Your task to perform on an android device: open app "HBO Max: Stream TV & Movies" (install if not already installed) and enter user name: "faring@outlook.com" and password: "appropriately" Image 0: 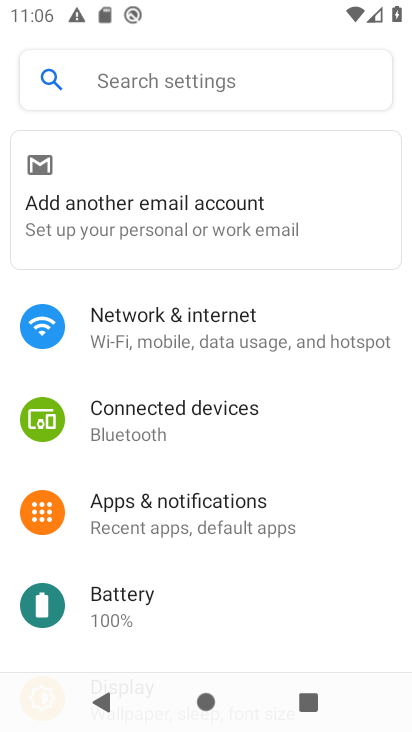
Step 0: press back button
Your task to perform on an android device: open app "HBO Max: Stream TV & Movies" (install if not already installed) and enter user name: "faring@outlook.com" and password: "appropriately" Image 1: 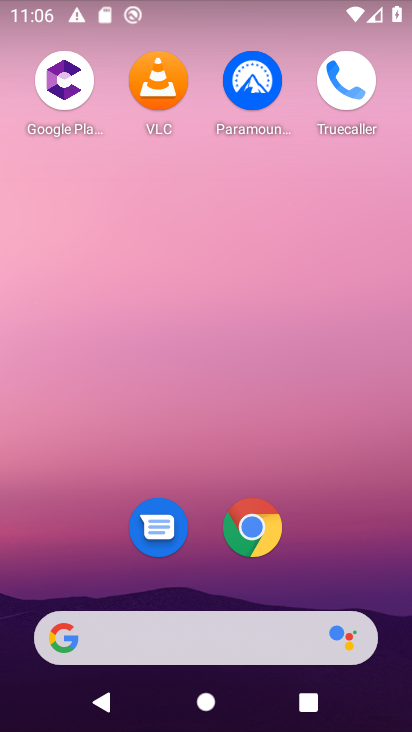
Step 1: drag from (89, 574) to (249, 13)
Your task to perform on an android device: open app "HBO Max: Stream TV & Movies" (install if not already installed) and enter user name: "faring@outlook.com" and password: "appropriately" Image 2: 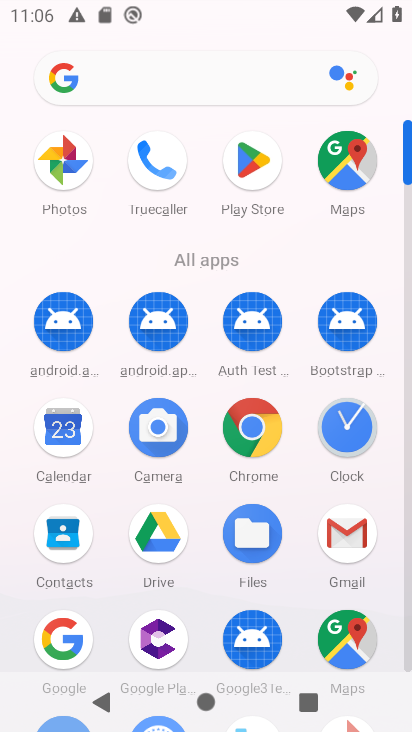
Step 2: click (251, 155)
Your task to perform on an android device: open app "HBO Max: Stream TV & Movies" (install if not already installed) and enter user name: "faring@outlook.com" and password: "appropriately" Image 3: 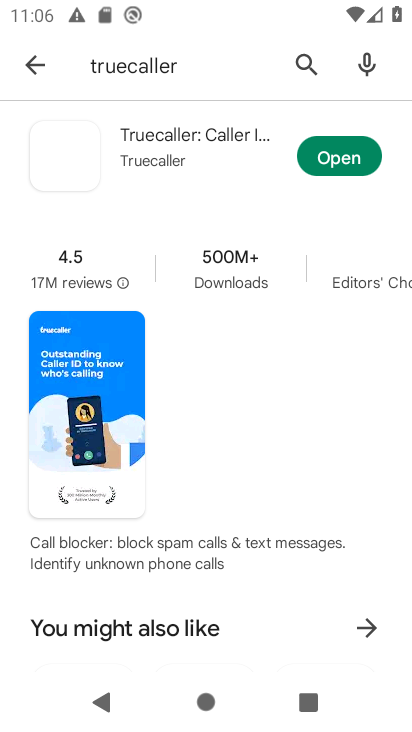
Step 3: click (319, 49)
Your task to perform on an android device: open app "HBO Max: Stream TV & Movies" (install if not already installed) and enter user name: "faring@outlook.com" and password: "appropriately" Image 4: 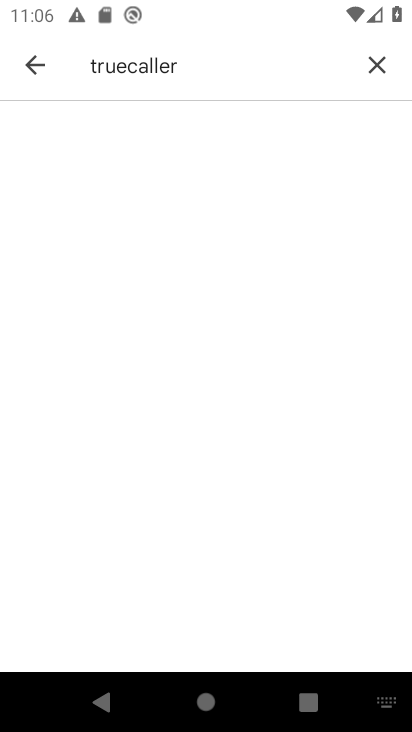
Step 4: click (388, 52)
Your task to perform on an android device: open app "HBO Max: Stream TV & Movies" (install if not already installed) and enter user name: "faring@outlook.com" and password: "appropriately" Image 5: 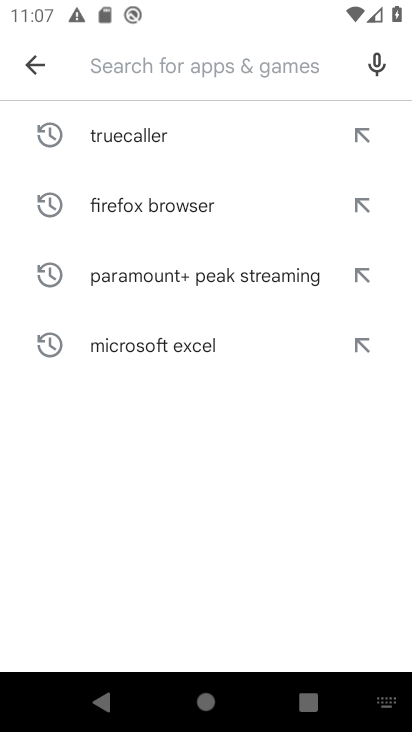
Step 5: click (148, 69)
Your task to perform on an android device: open app "HBO Max: Stream TV & Movies" (install if not already installed) and enter user name: "faring@outlook.com" and password: "appropriately" Image 6: 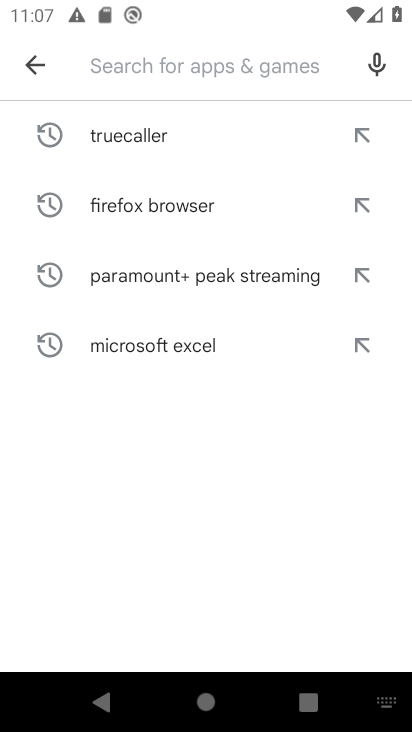
Step 6: type "HBO Max"
Your task to perform on an android device: open app "HBO Max: Stream TV & Movies" (install if not already installed) and enter user name: "faring@outlook.com" and password: "appropriately" Image 7: 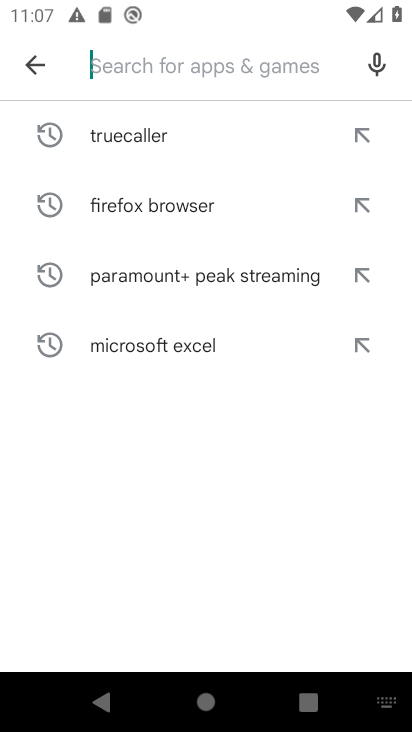
Step 7: click (261, 492)
Your task to perform on an android device: open app "HBO Max: Stream TV & Movies" (install if not already installed) and enter user name: "faring@outlook.com" and password: "appropriately" Image 8: 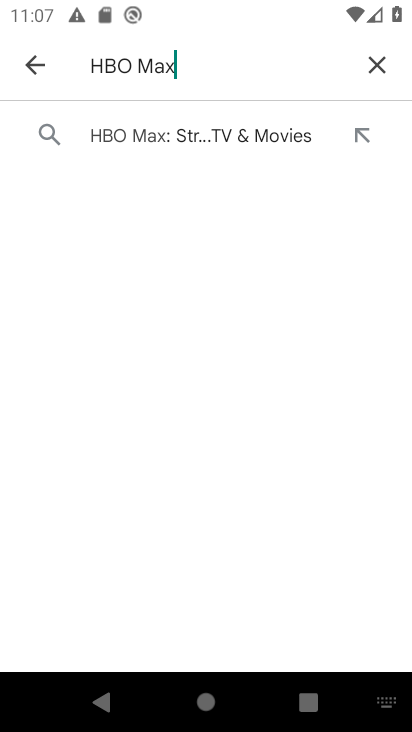
Step 8: click (144, 130)
Your task to perform on an android device: open app "HBO Max: Stream TV & Movies" (install if not already installed) and enter user name: "faring@outlook.com" and password: "appropriately" Image 9: 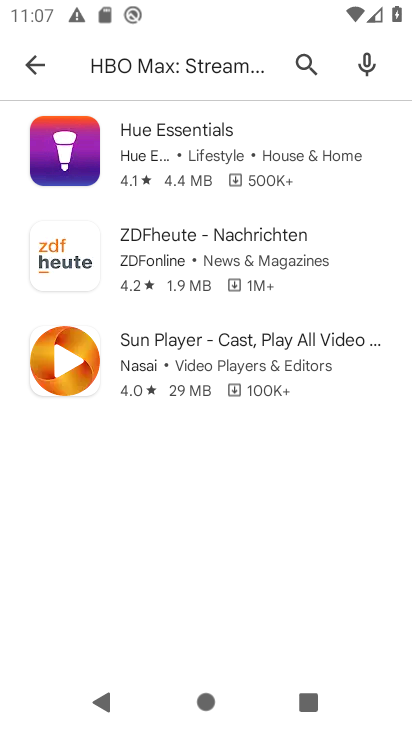
Step 9: click (307, 60)
Your task to perform on an android device: open app "HBO Max: Stream TV & Movies" (install if not already installed) and enter user name: "faring@outlook.com" and password: "appropriately" Image 10: 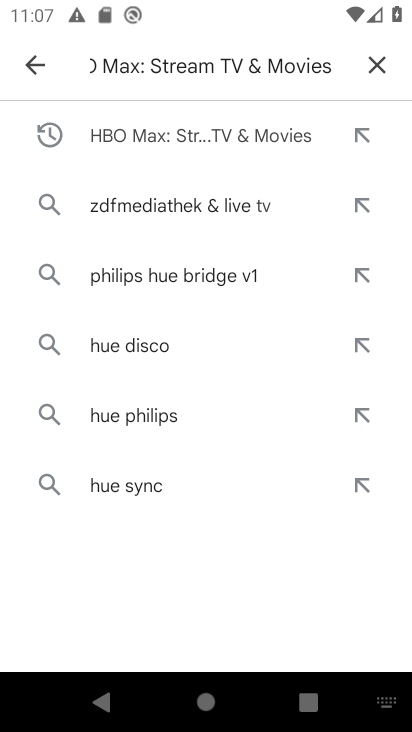
Step 10: type "hbo"
Your task to perform on an android device: open app "HBO Max: Stream TV & Movies" (install if not already installed) and enter user name: "faring@outlook.com" and password: "appropriately" Image 11: 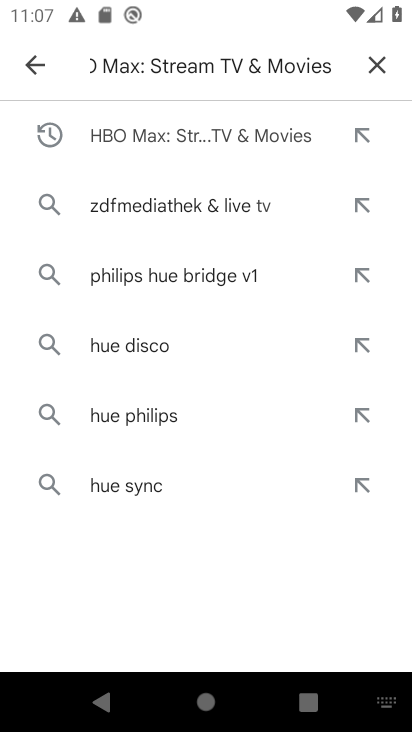
Step 11: click (368, 60)
Your task to perform on an android device: open app "HBO Max: Stream TV & Movies" (install if not already installed) and enter user name: "faring@outlook.com" and password: "appropriately" Image 12: 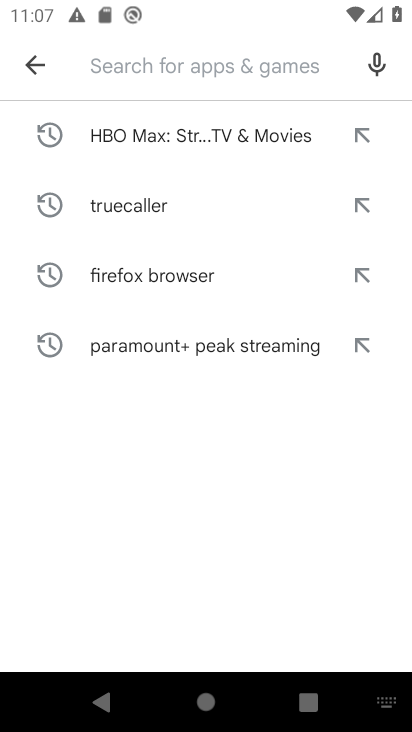
Step 12: type "hbo"
Your task to perform on an android device: open app "HBO Max: Stream TV & Movies" (install if not already installed) and enter user name: "faring@outlook.com" and password: "appropriately" Image 13: 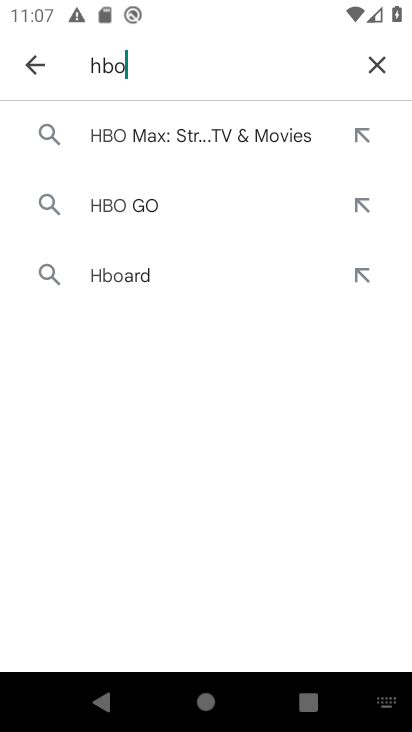
Step 13: click (157, 135)
Your task to perform on an android device: open app "HBO Max: Stream TV & Movies" (install if not already installed) and enter user name: "faring@outlook.com" and password: "appropriately" Image 14: 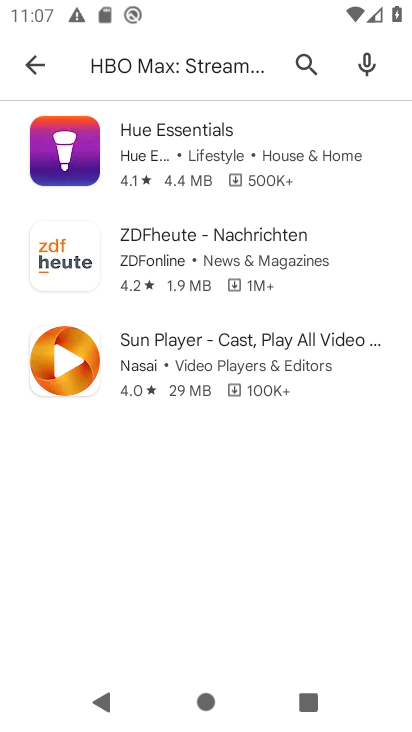
Step 14: task complete